Your task to perform on an android device: remove spam from my inbox in the gmail app Image 0: 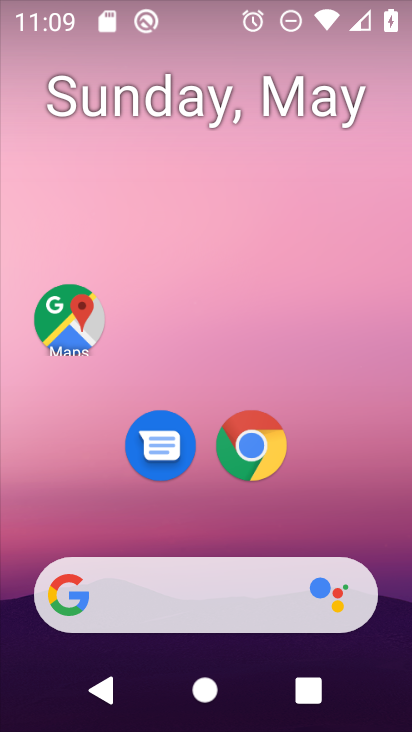
Step 0: drag from (273, 517) to (266, 32)
Your task to perform on an android device: remove spam from my inbox in the gmail app Image 1: 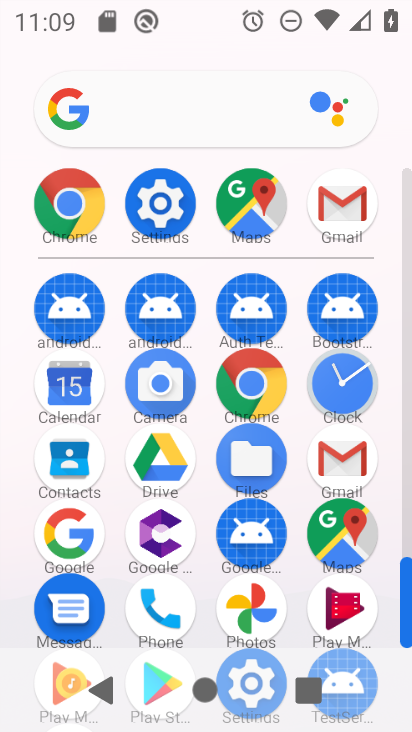
Step 1: click (339, 459)
Your task to perform on an android device: remove spam from my inbox in the gmail app Image 2: 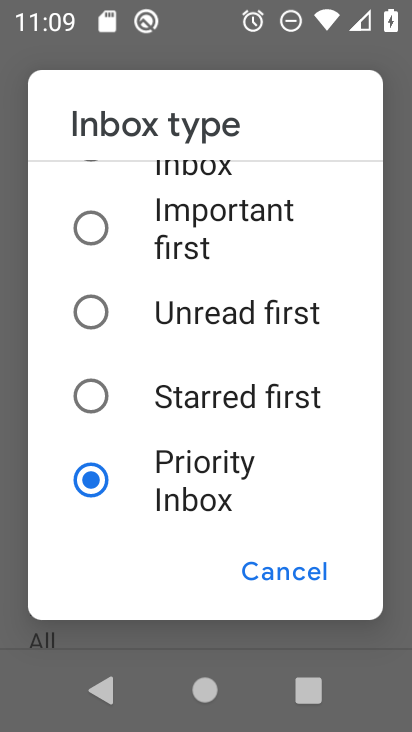
Step 2: click (289, 573)
Your task to perform on an android device: remove spam from my inbox in the gmail app Image 3: 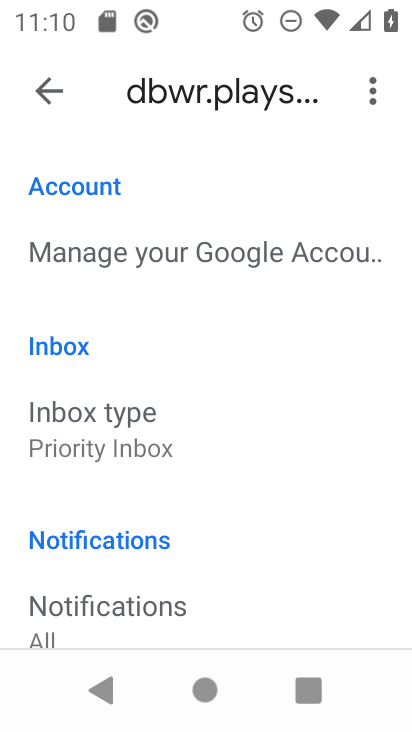
Step 3: task complete